Your task to perform on an android device: change notification settings in the gmail app Image 0: 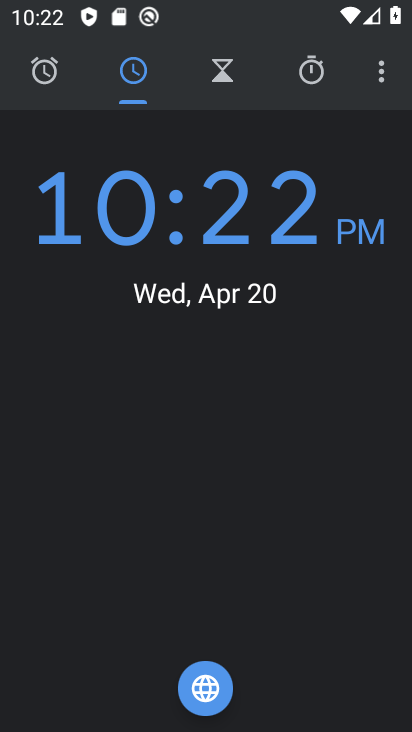
Step 0: press home button
Your task to perform on an android device: change notification settings in the gmail app Image 1: 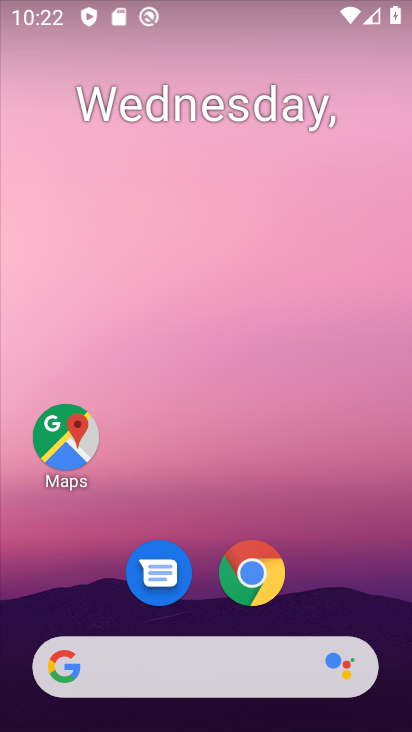
Step 1: drag from (304, 588) to (337, 115)
Your task to perform on an android device: change notification settings in the gmail app Image 2: 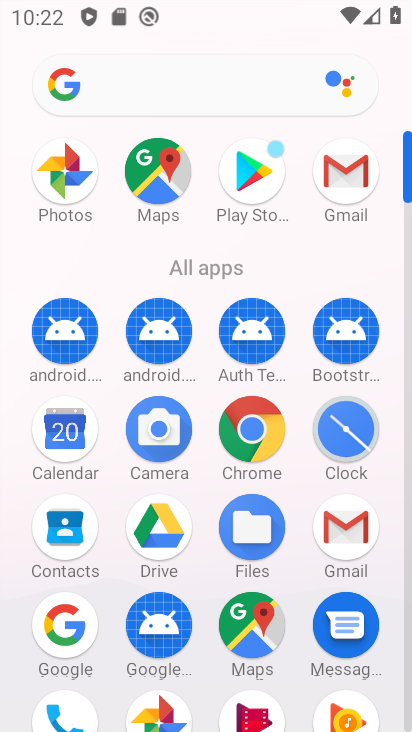
Step 2: click (360, 185)
Your task to perform on an android device: change notification settings in the gmail app Image 3: 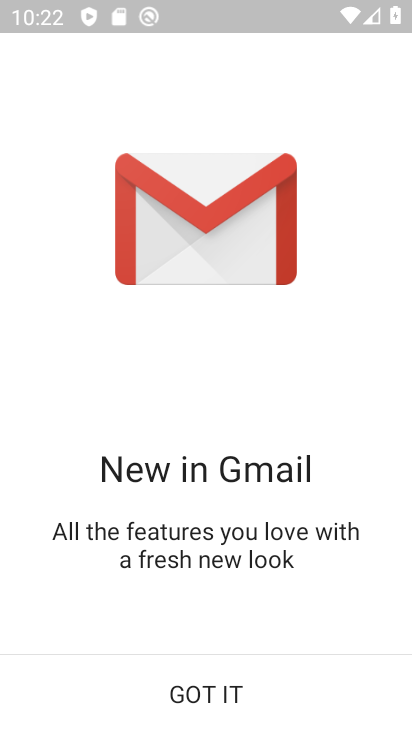
Step 3: click (226, 693)
Your task to perform on an android device: change notification settings in the gmail app Image 4: 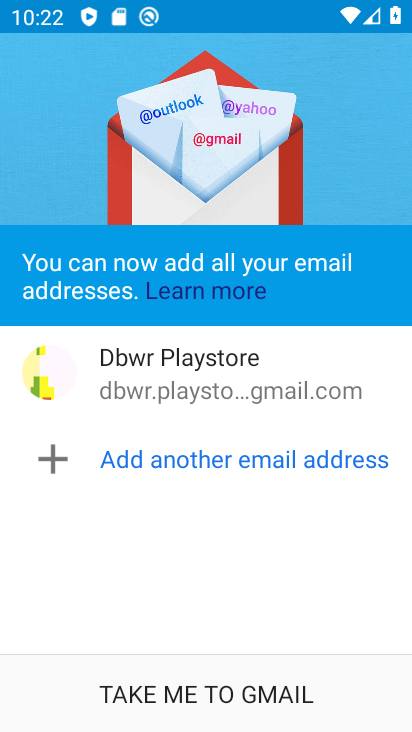
Step 4: click (169, 683)
Your task to perform on an android device: change notification settings in the gmail app Image 5: 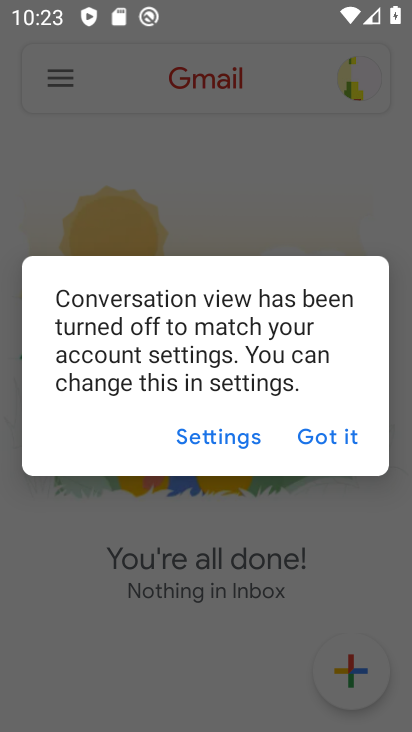
Step 5: click (349, 437)
Your task to perform on an android device: change notification settings in the gmail app Image 6: 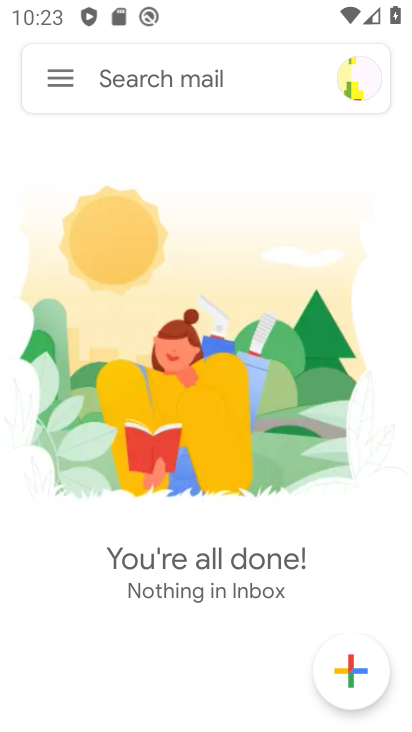
Step 6: click (58, 83)
Your task to perform on an android device: change notification settings in the gmail app Image 7: 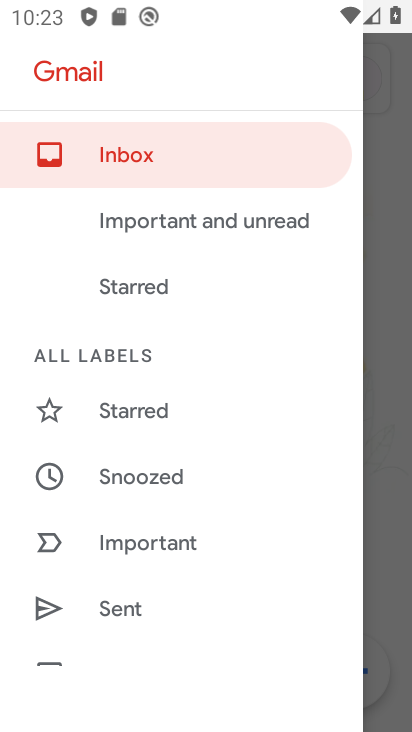
Step 7: drag from (138, 641) to (138, 321)
Your task to perform on an android device: change notification settings in the gmail app Image 8: 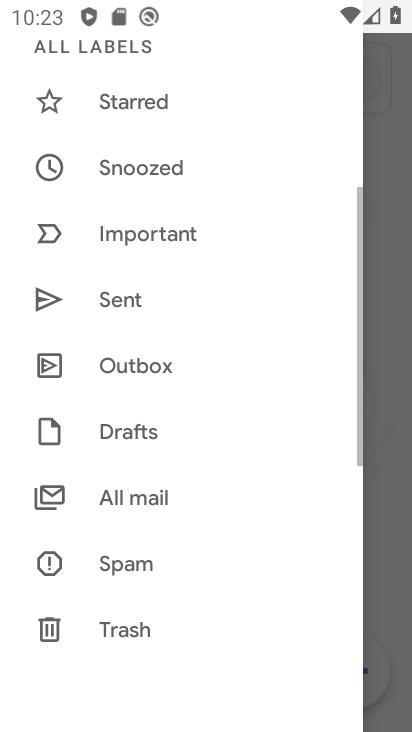
Step 8: drag from (149, 630) to (153, 266)
Your task to perform on an android device: change notification settings in the gmail app Image 9: 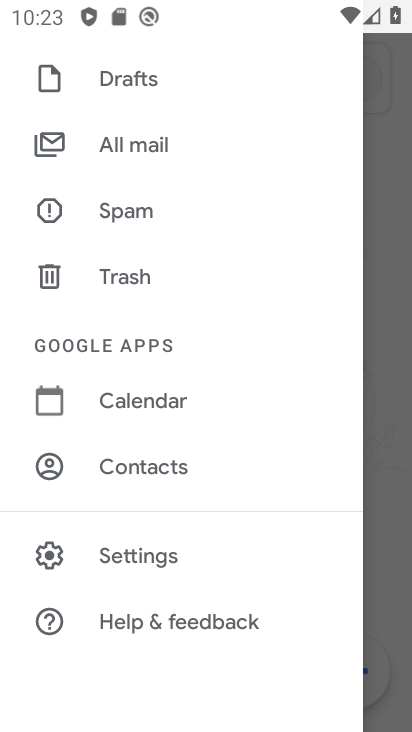
Step 9: click (134, 556)
Your task to perform on an android device: change notification settings in the gmail app Image 10: 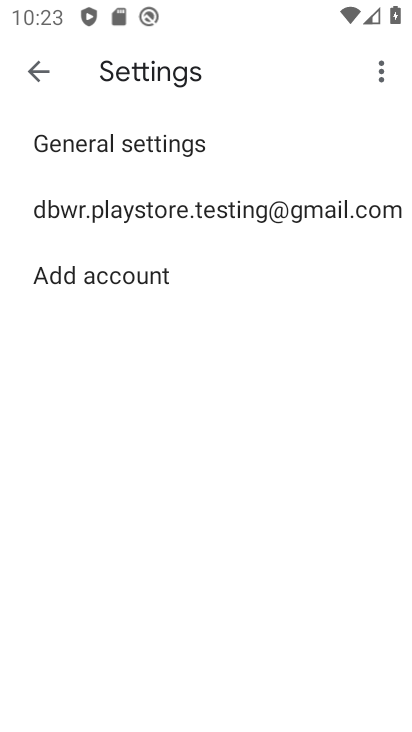
Step 10: click (184, 203)
Your task to perform on an android device: change notification settings in the gmail app Image 11: 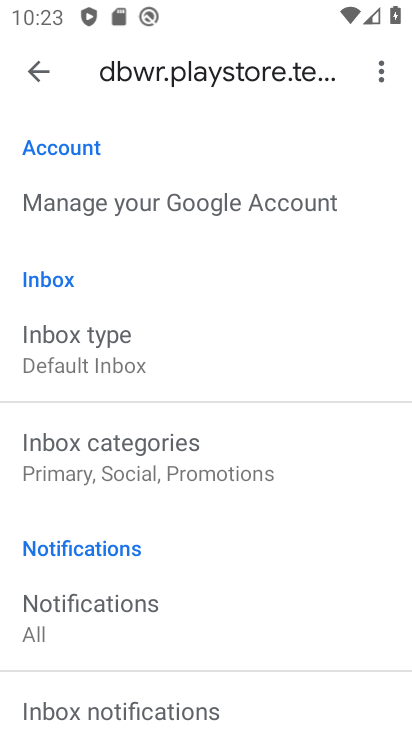
Step 11: drag from (249, 580) to (281, 318)
Your task to perform on an android device: change notification settings in the gmail app Image 12: 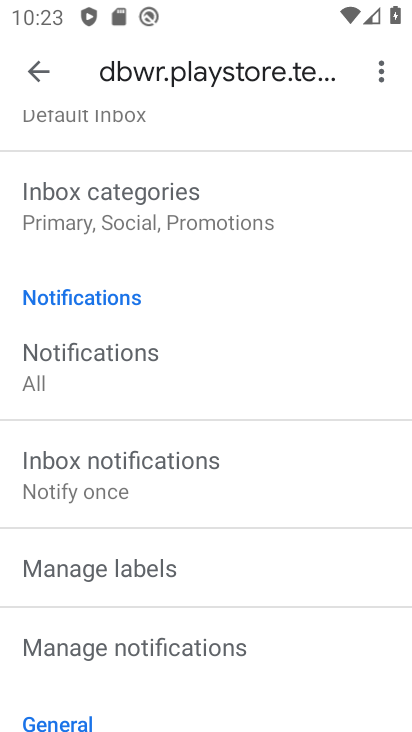
Step 12: click (149, 365)
Your task to perform on an android device: change notification settings in the gmail app Image 13: 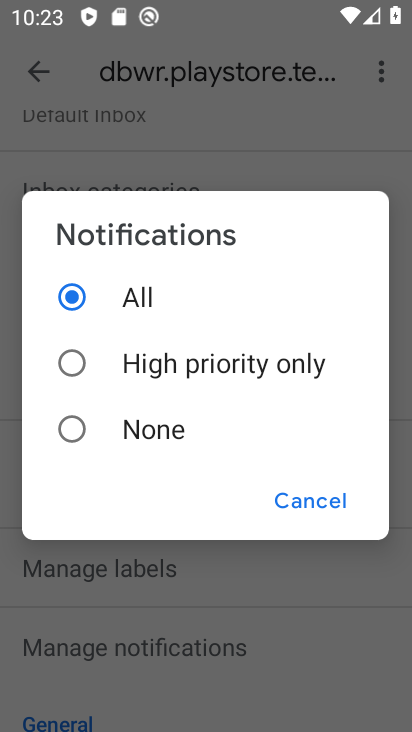
Step 13: click (148, 364)
Your task to perform on an android device: change notification settings in the gmail app Image 14: 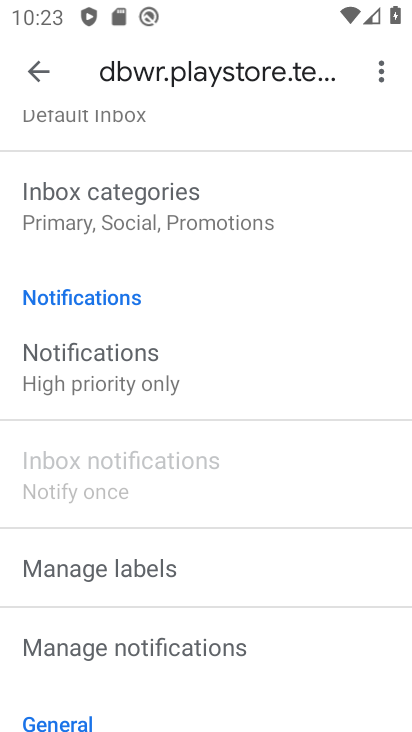
Step 14: task complete